Your task to perform on an android device: turn on javascript in the chrome app Image 0: 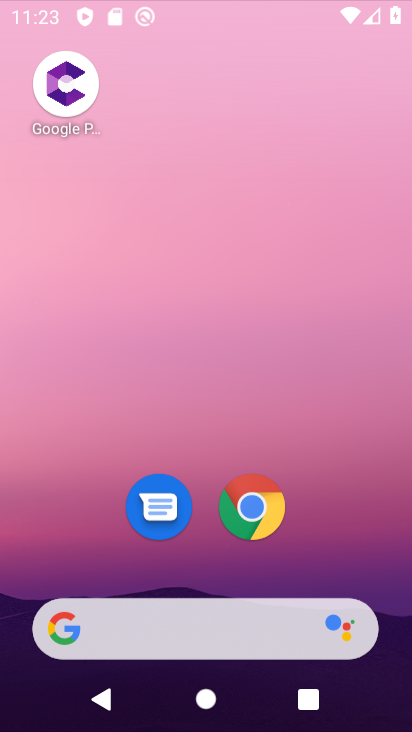
Step 0: click (207, 102)
Your task to perform on an android device: turn on javascript in the chrome app Image 1: 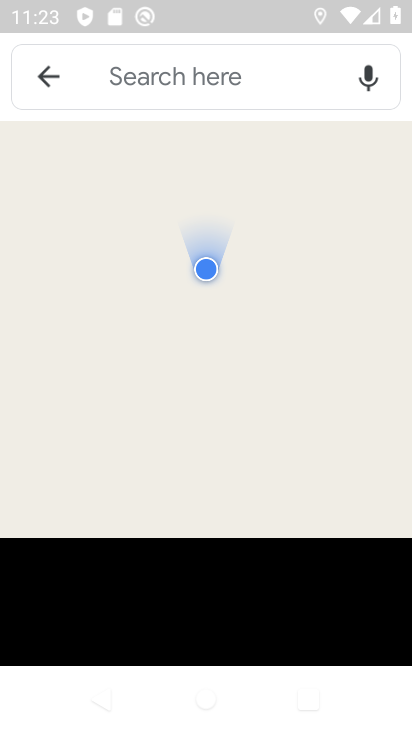
Step 1: press home button
Your task to perform on an android device: turn on javascript in the chrome app Image 2: 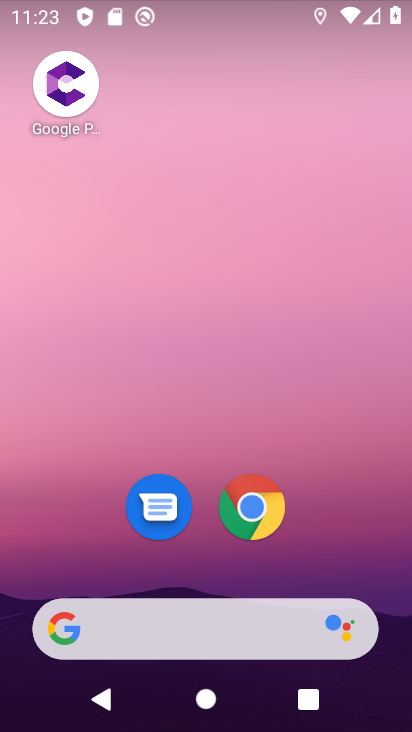
Step 2: click (265, 508)
Your task to perform on an android device: turn on javascript in the chrome app Image 3: 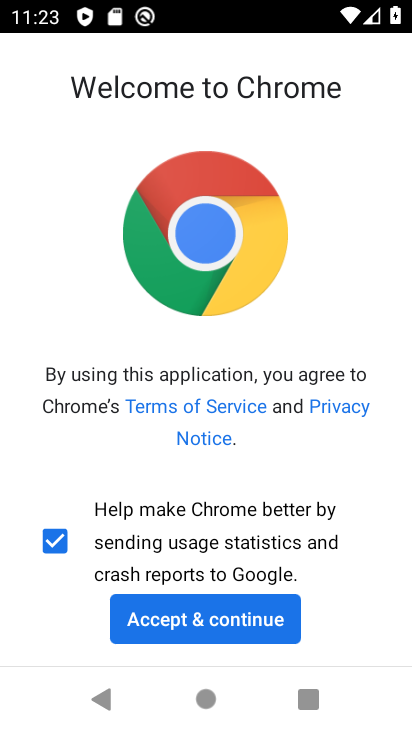
Step 3: click (277, 633)
Your task to perform on an android device: turn on javascript in the chrome app Image 4: 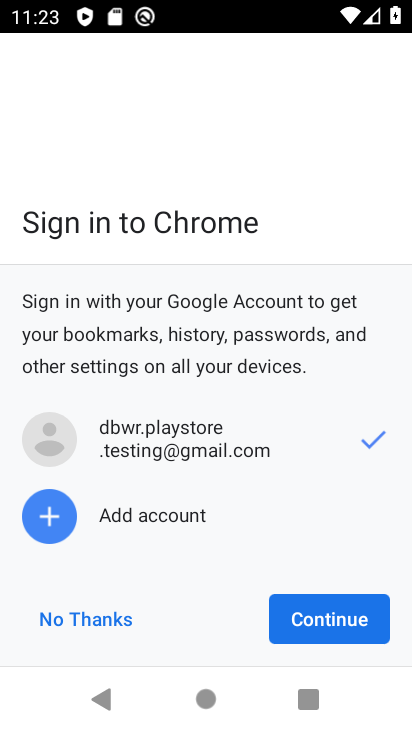
Step 4: click (314, 616)
Your task to perform on an android device: turn on javascript in the chrome app Image 5: 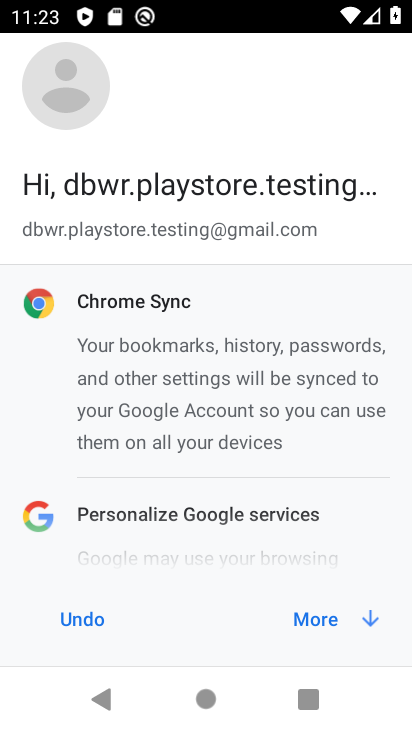
Step 5: click (315, 615)
Your task to perform on an android device: turn on javascript in the chrome app Image 6: 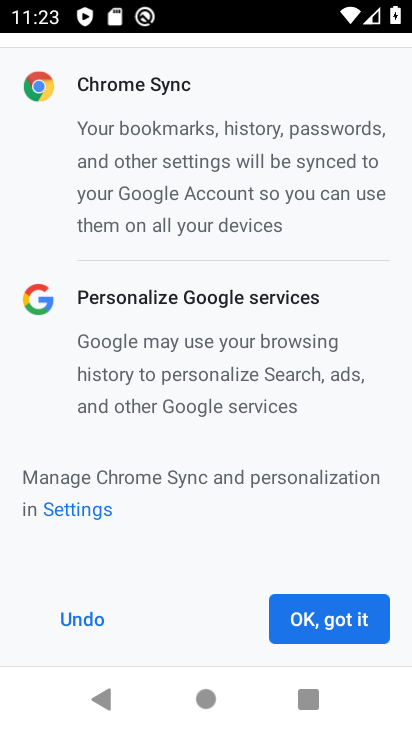
Step 6: click (315, 615)
Your task to perform on an android device: turn on javascript in the chrome app Image 7: 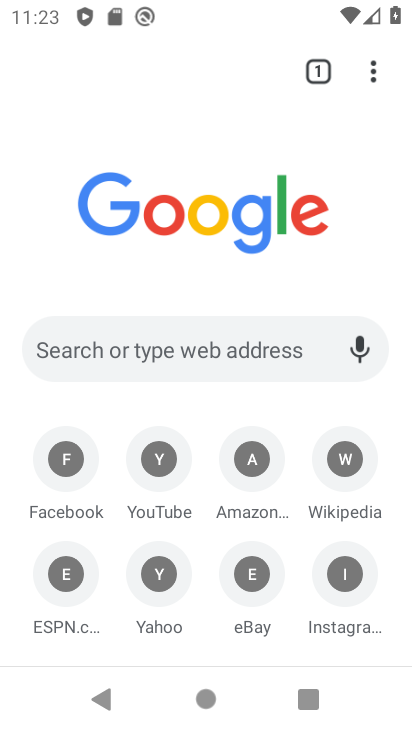
Step 7: drag from (382, 93) to (256, 477)
Your task to perform on an android device: turn on javascript in the chrome app Image 8: 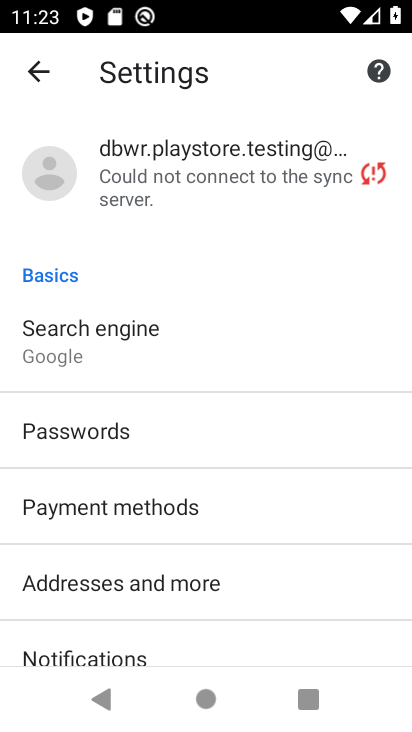
Step 8: drag from (178, 625) to (295, 341)
Your task to perform on an android device: turn on javascript in the chrome app Image 9: 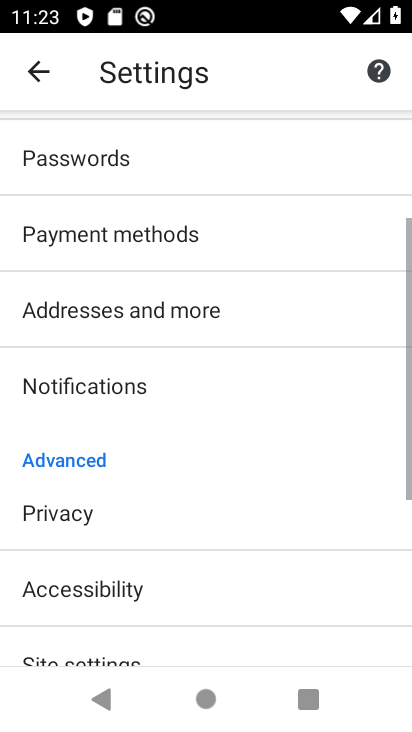
Step 9: drag from (192, 609) to (269, 259)
Your task to perform on an android device: turn on javascript in the chrome app Image 10: 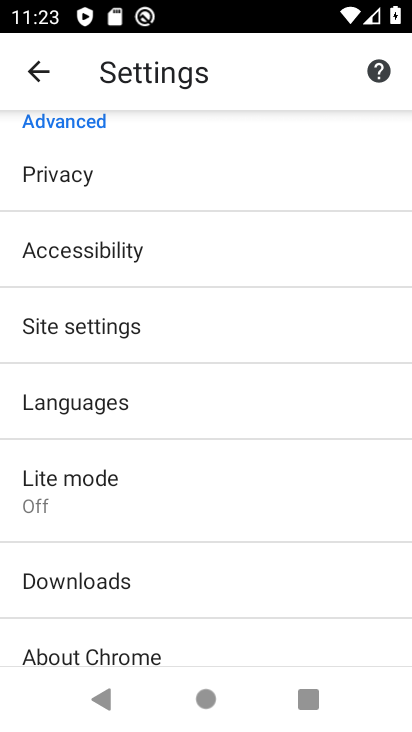
Step 10: click (166, 332)
Your task to perform on an android device: turn on javascript in the chrome app Image 11: 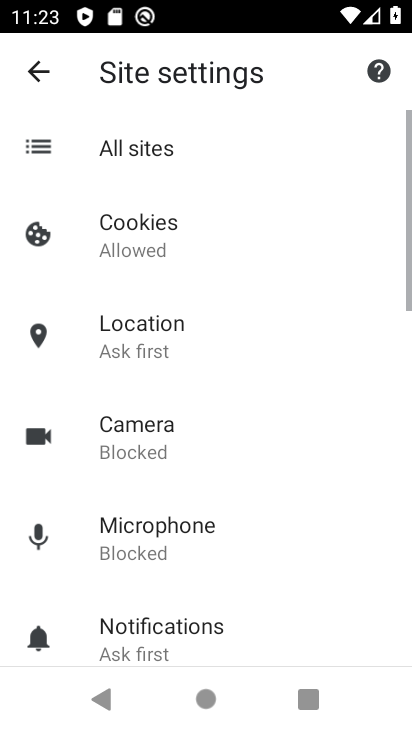
Step 11: drag from (214, 566) to (280, 162)
Your task to perform on an android device: turn on javascript in the chrome app Image 12: 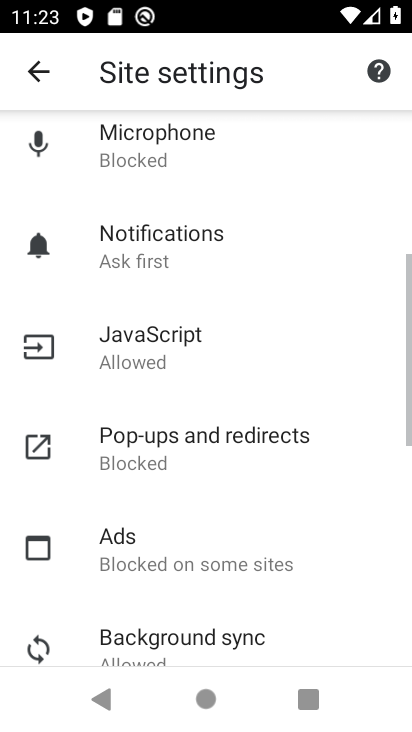
Step 12: click (219, 367)
Your task to perform on an android device: turn on javascript in the chrome app Image 13: 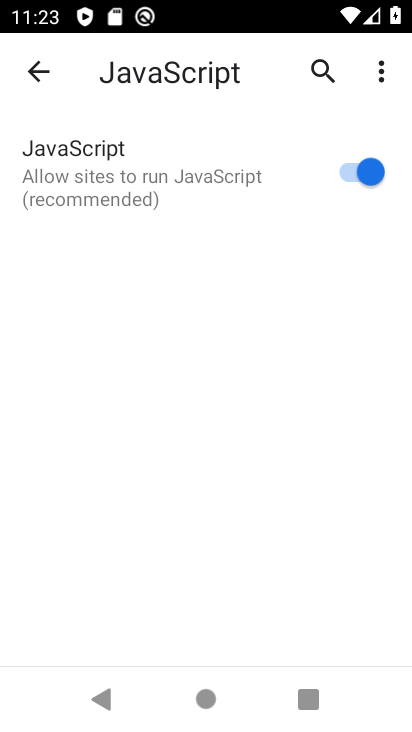
Step 13: task complete